Your task to perform on an android device: Open Wikipedia Image 0: 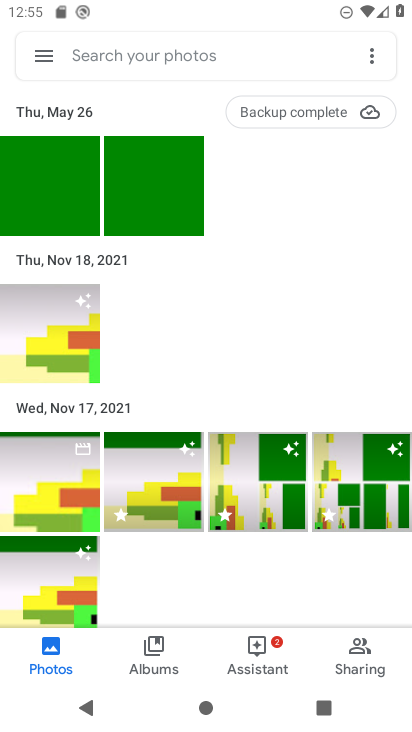
Step 0: press home button
Your task to perform on an android device: Open Wikipedia Image 1: 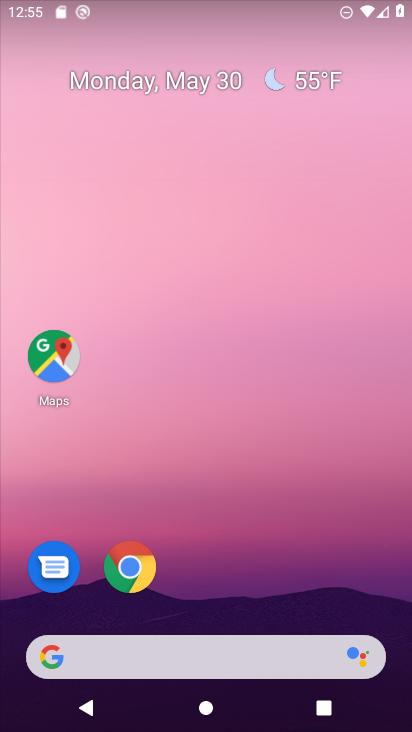
Step 1: drag from (226, 614) to (233, 63)
Your task to perform on an android device: Open Wikipedia Image 2: 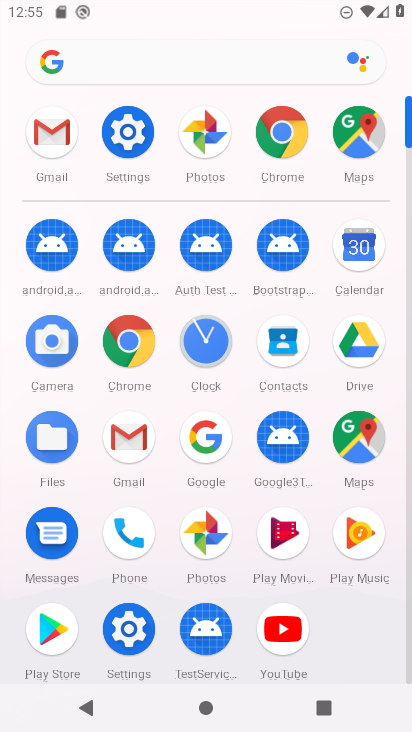
Step 2: click (276, 125)
Your task to perform on an android device: Open Wikipedia Image 3: 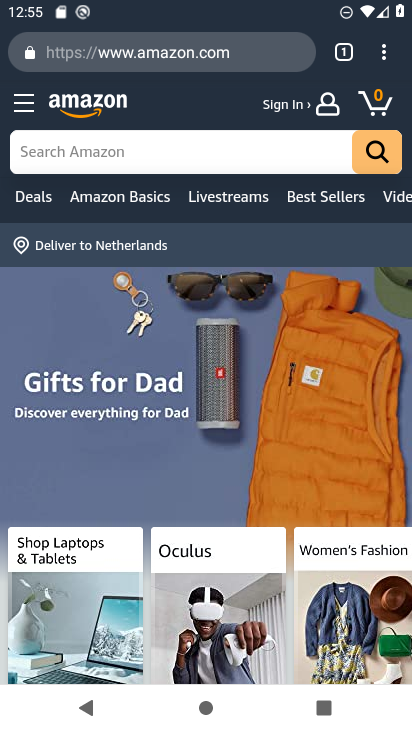
Step 3: click (344, 47)
Your task to perform on an android device: Open Wikipedia Image 4: 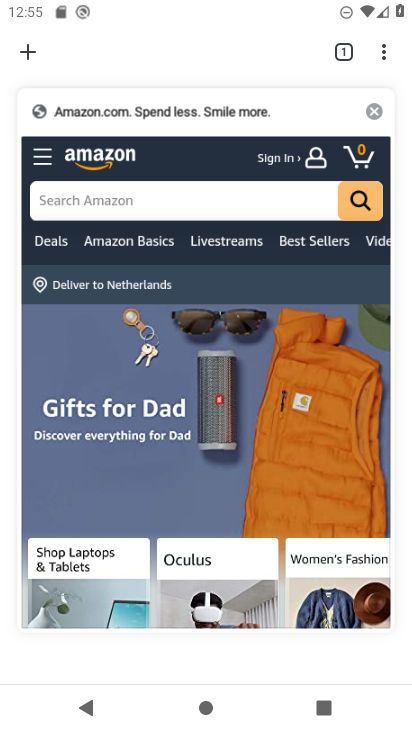
Step 4: click (374, 111)
Your task to perform on an android device: Open Wikipedia Image 5: 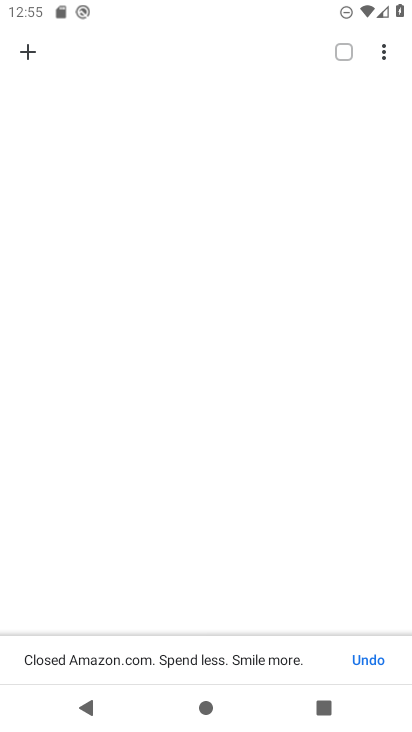
Step 5: click (26, 56)
Your task to perform on an android device: Open Wikipedia Image 6: 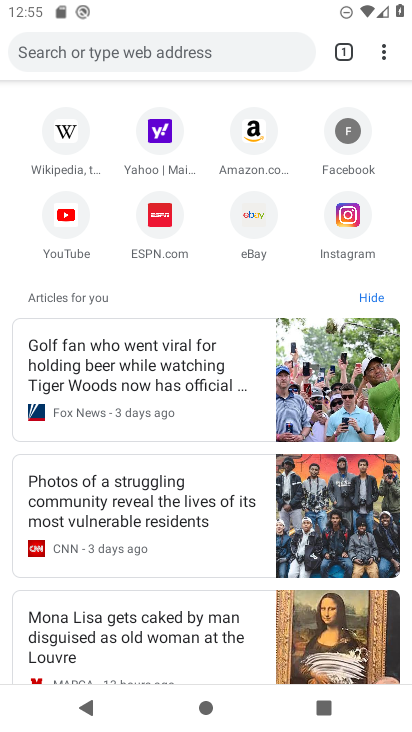
Step 6: click (66, 124)
Your task to perform on an android device: Open Wikipedia Image 7: 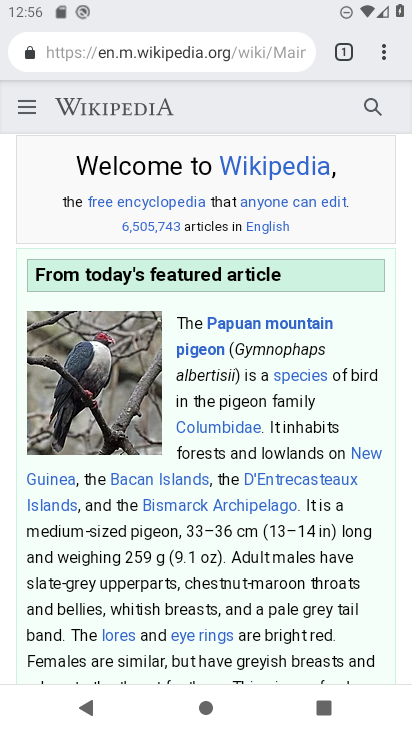
Step 7: task complete